Your task to perform on an android device: Open display settings Image 0: 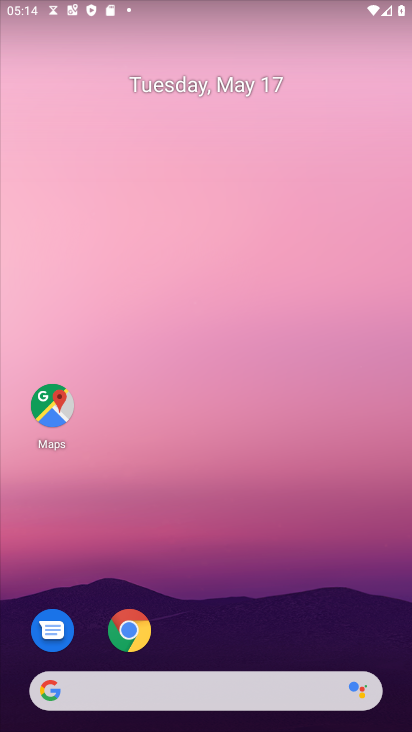
Step 0: drag from (217, 614) to (163, 57)
Your task to perform on an android device: Open display settings Image 1: 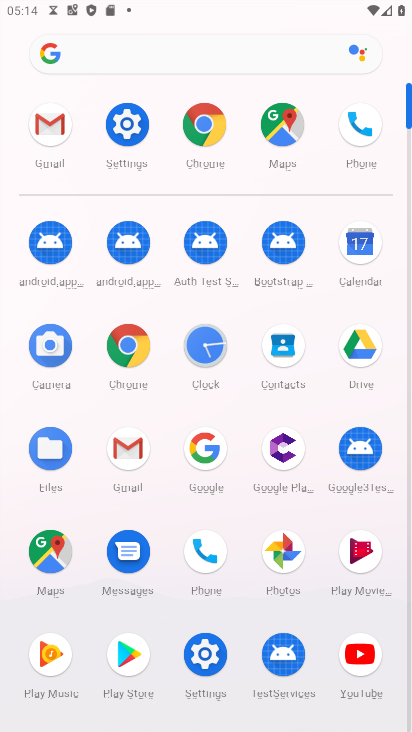
Step 1: click (127, 127)
Your task to perform on an android device: Open display settings Image 2: 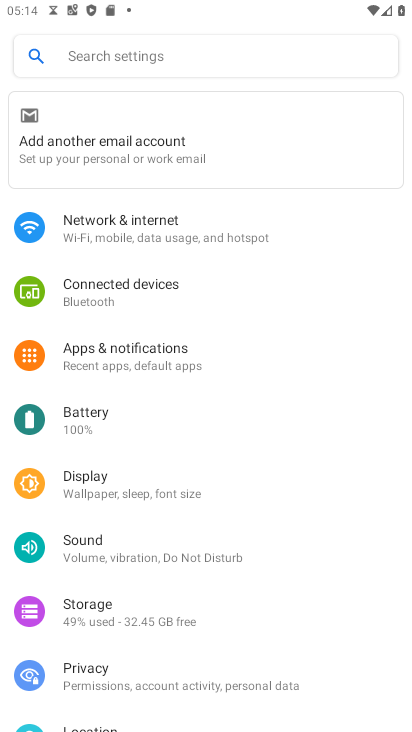
Step 2: click (100, 487)
Your task to perform on an android device: Open display settings Image 3: 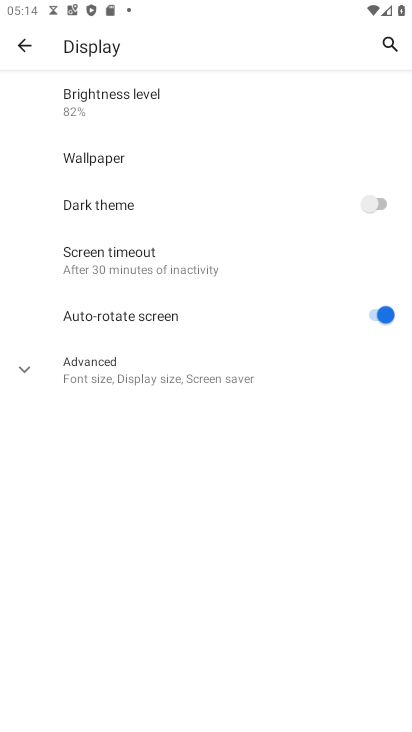
Step 3: task complete